Your task to perform on an android device: Open the calendar and show me this week's events? Image 0: 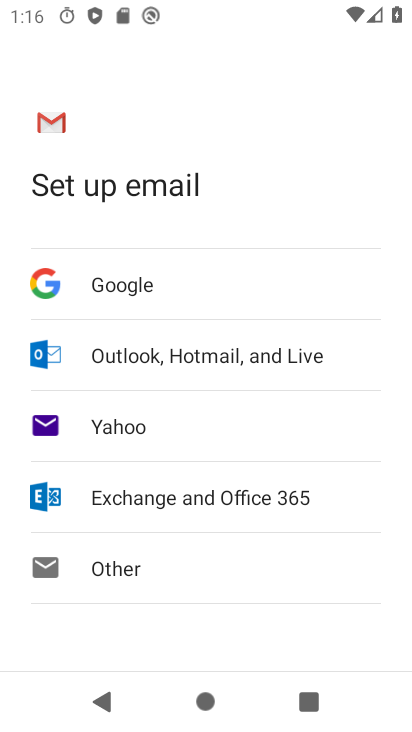
Step 0: press home button
Your task to perform on an android device: Open the calendar and show me this week's events? Image 1: 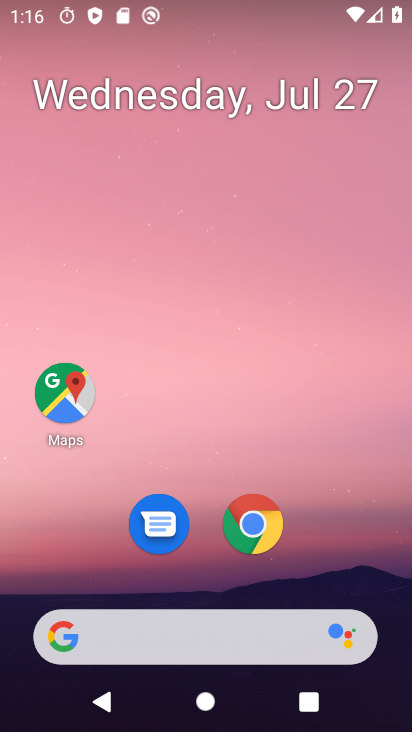
Step 1: drag from (330, 544) to (282, 2)
Your task to perform on an android device: Open the calendar and show me this week's events? Image 2: 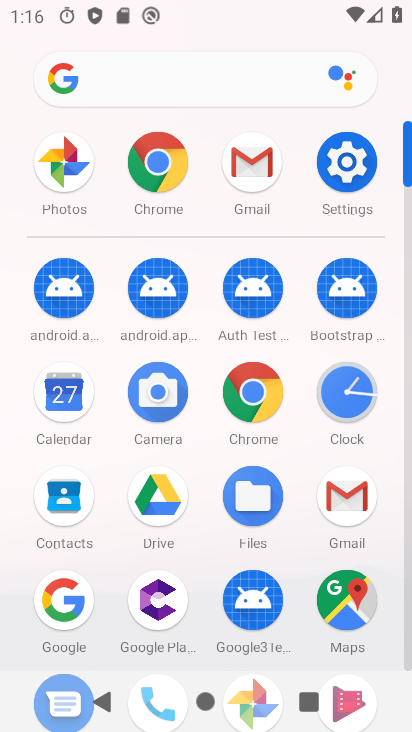
Step 2: click (73, 388)
Your task to perform on an android device: Open the calendar and show me this week's events? Image 3: 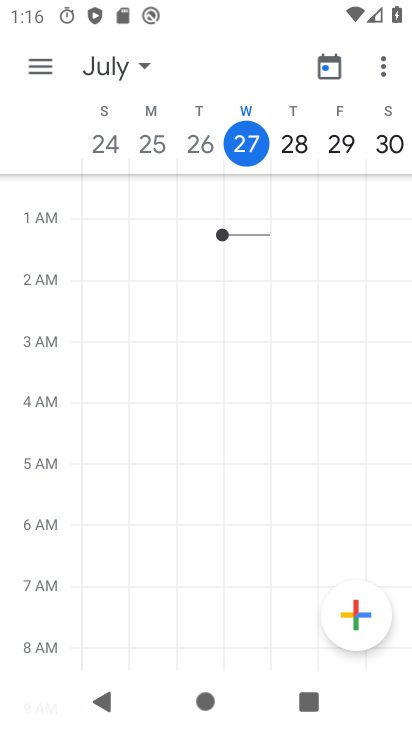
Step 3: task complete